Your task to perform on an android device: Open Chrome and go to settings Image 0: 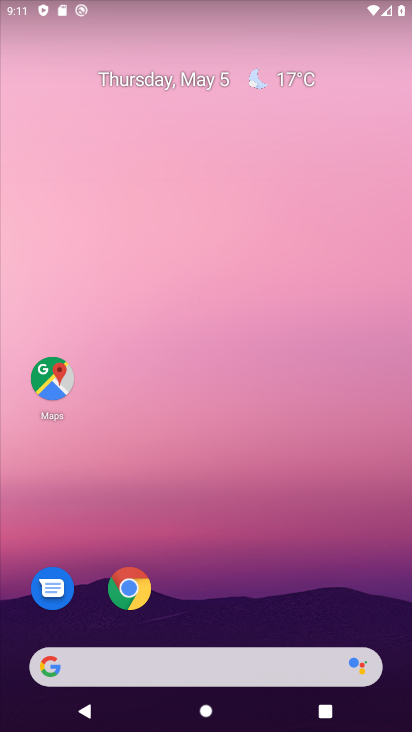
Step 0: drag from (222, 610) to (216, 256)
Your task to perform on an android device: Open Chrome and go to settings Image 1: 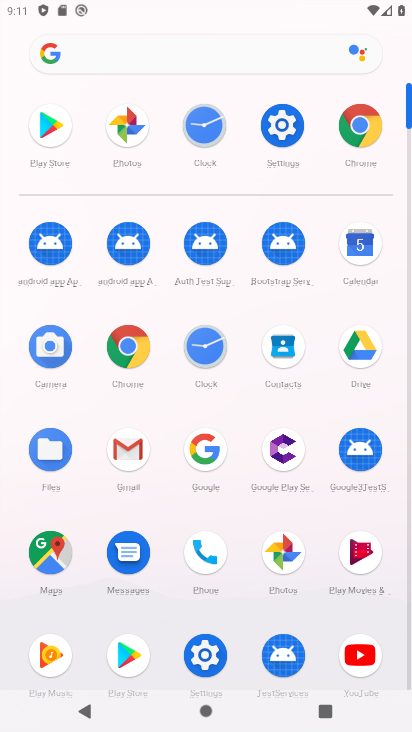
Step 1: click (127, 348)
Your task to perform on an android device: Open Chrome and go to settings Image 2: 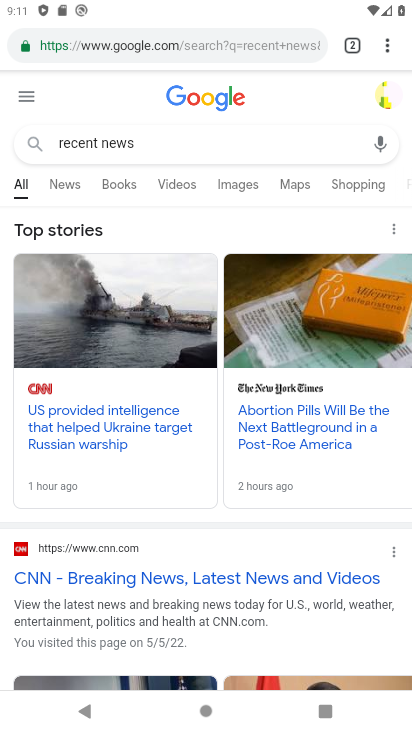
Step 2: click (389, 42)
Your task to perform on an android device: Open Chrome and go to settings Image 3: 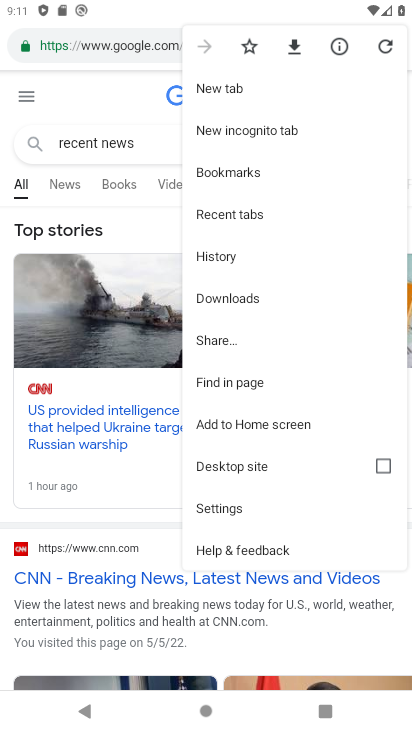
Step 3: click (237, 507)
Your task to perform on an android device: Open Chrome and go to settings Image 4: 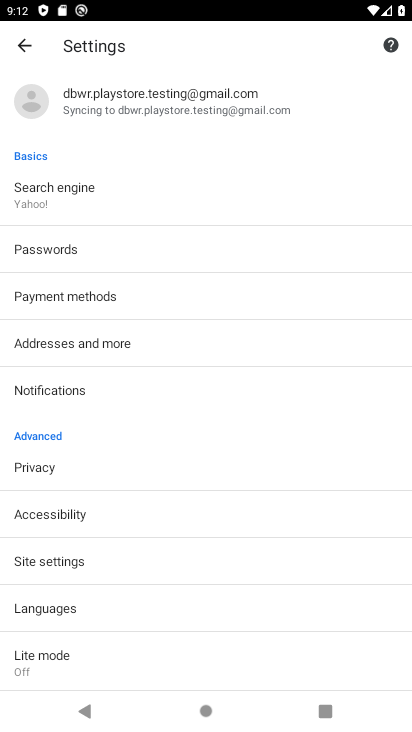
Step 4: task complete